Your task to perform on an android device: change the clock style Image 0: 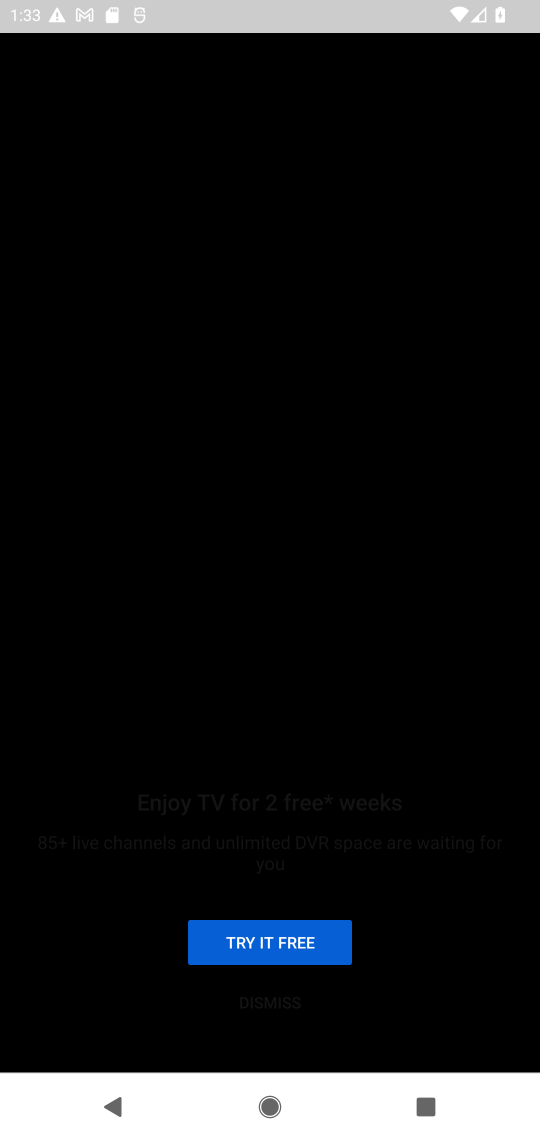
Step 0: press home button
Your task to perform on an android device: change the clock style Image 1: 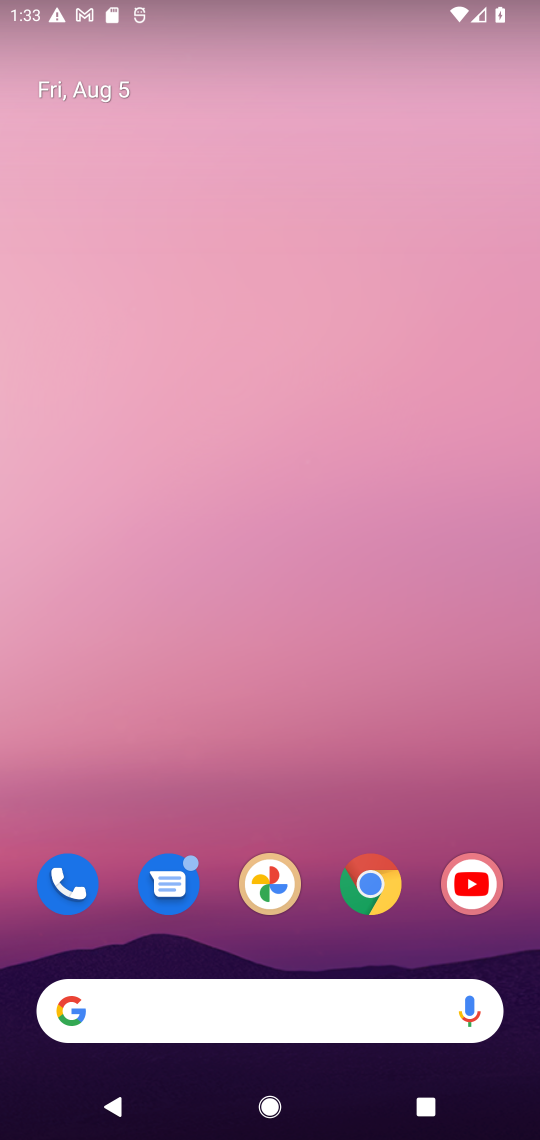
Step 1: drag from (503, 947) to (524, 397)
Your task to perform on an android device: change the clock style Image 2: 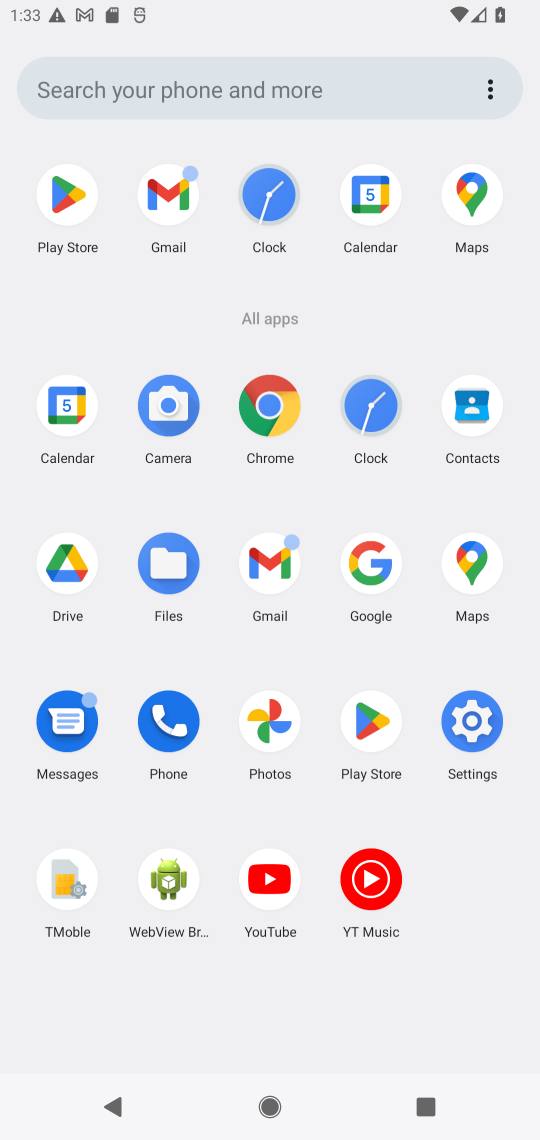
Step 2: click (389, 412)
Your task to perform on an android device: change the clock style Image 3: 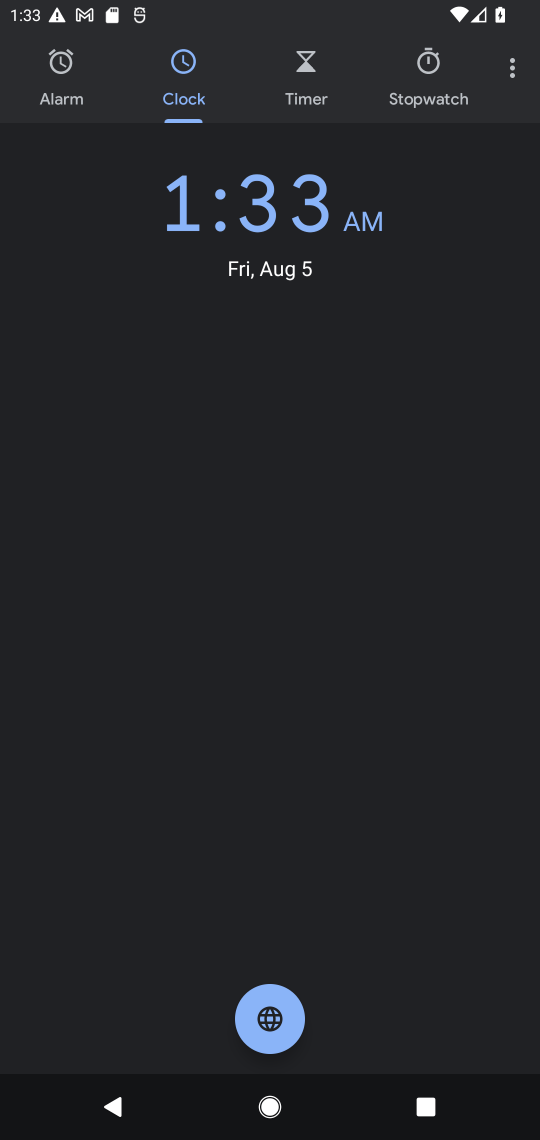
Step 3: click (502, 72)
Your task to perform on an android device: change the clock style Image 4: 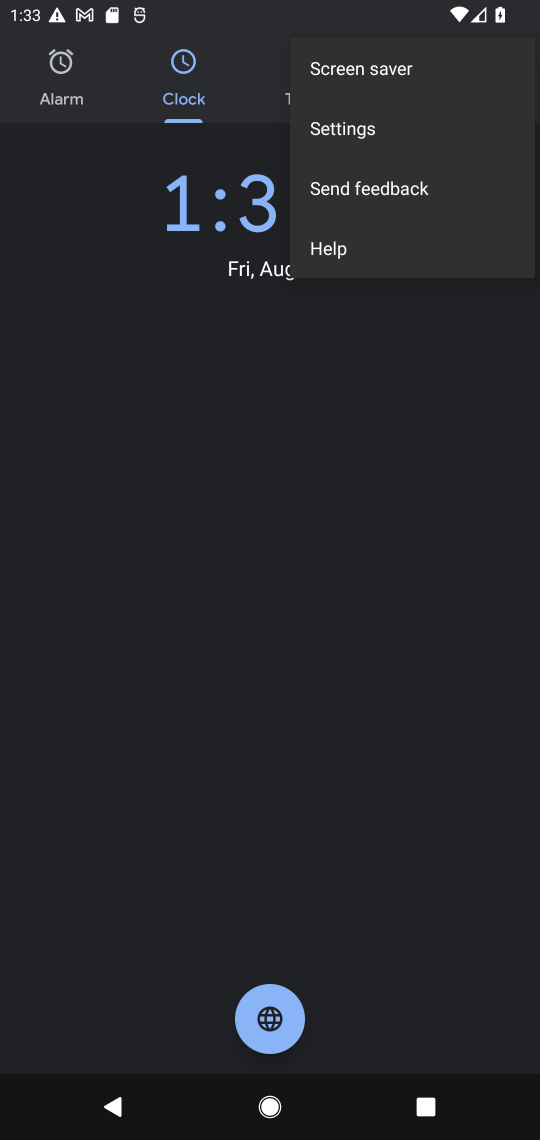
Step 4: click (315, 125)
Your task to perform on an android device: change the clock style Image 5: 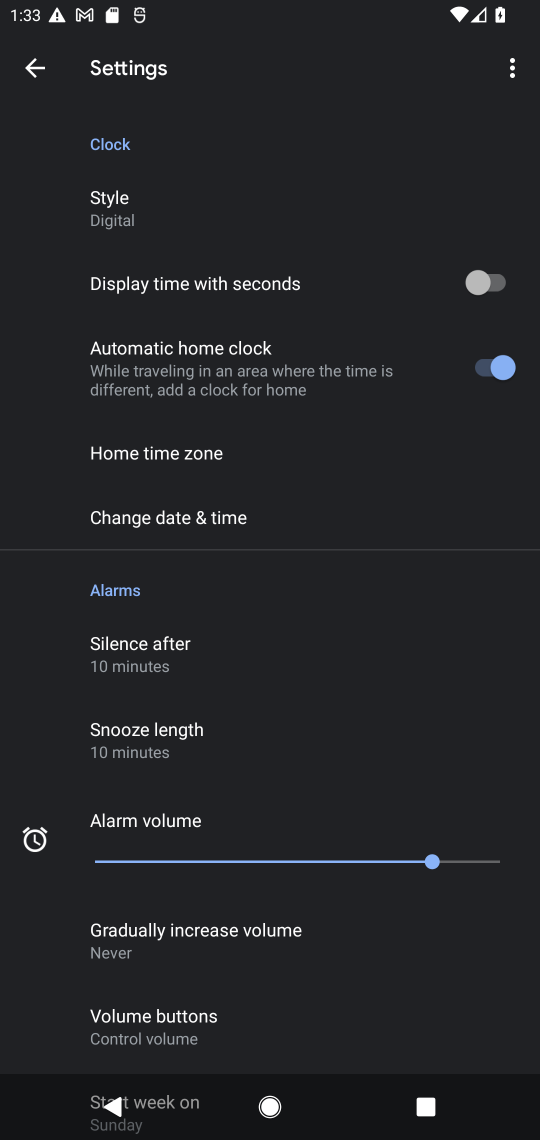
Step 5: click (127, 217)
Your task to perform on an android device: change the clock style Image 6: 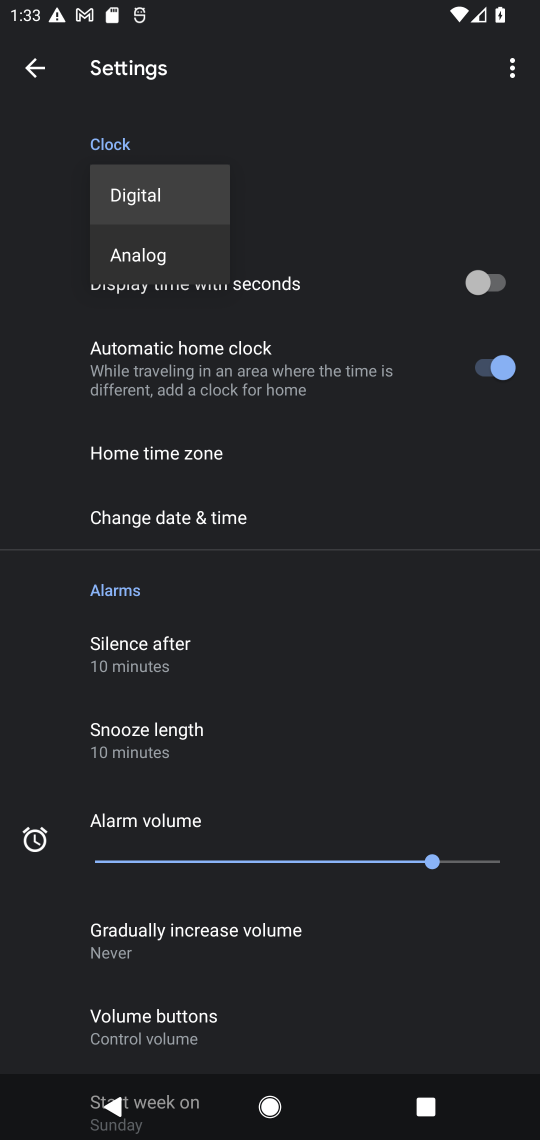
Step 6: click (167, 256)
Your task to perform on an android device: change the clock style Image 7: 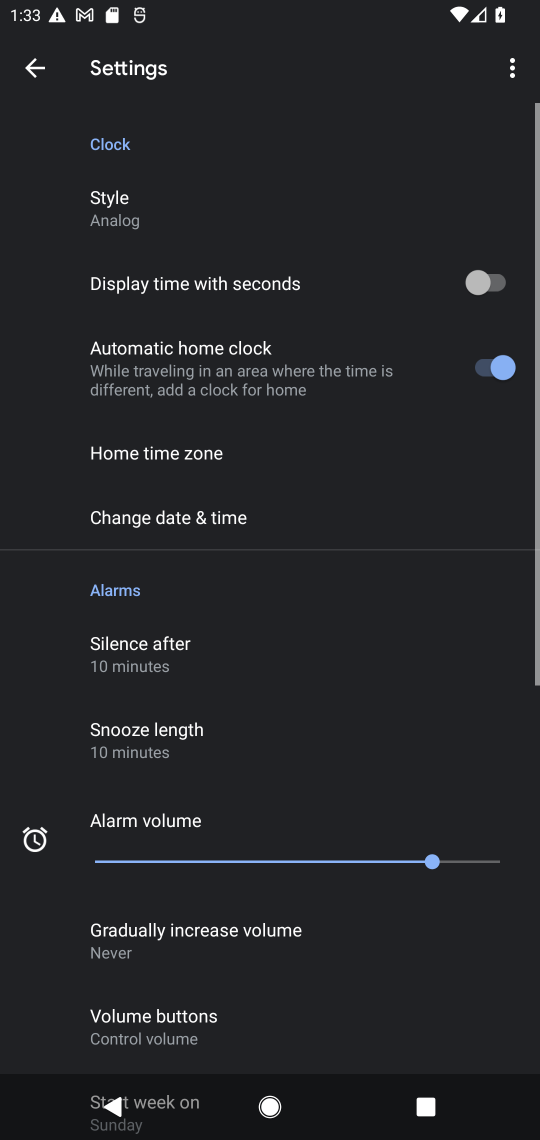
Step 7: task complete